Your task to perform on an android device: Open notification settings Image 0: 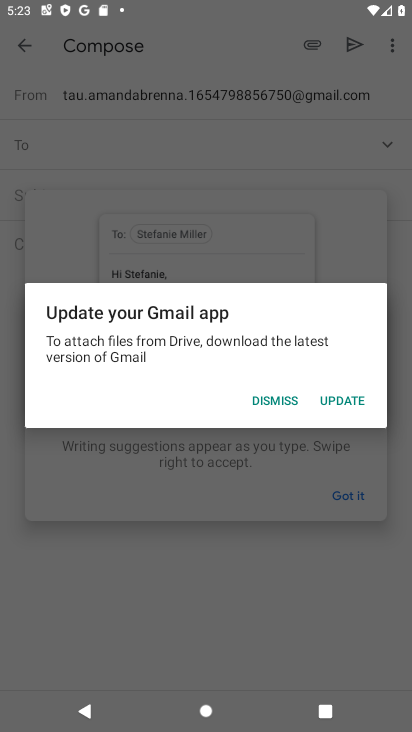
Step 0: press home button
Your task to perform on an android device: Open notification settings Image 1: 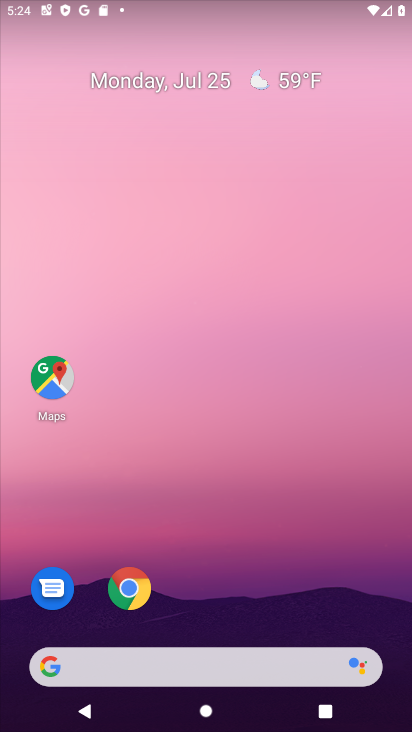
Step 1: click (247, 552)
Your task to perform on an android device: Open notification settings Image 2: 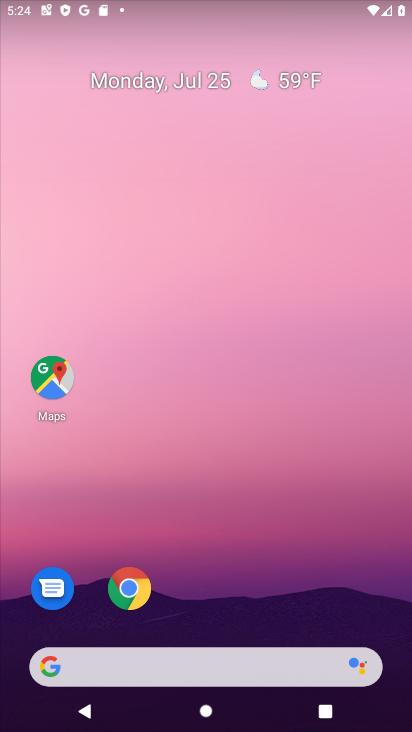
Step 2: click (239, 410)
Your task to perform on an android device: Open notification settings Image 3: 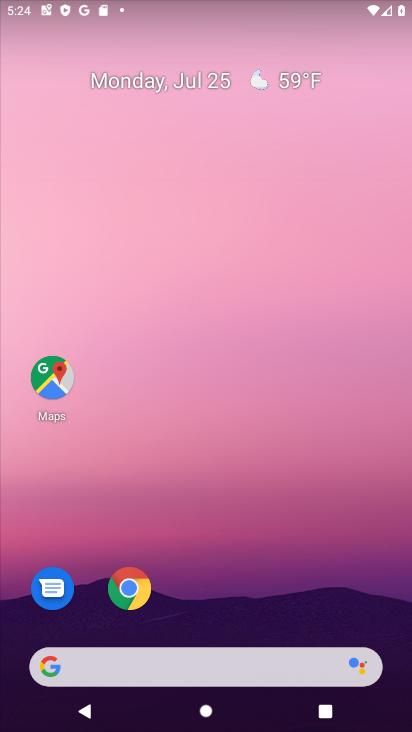
Step 3: drag from (234, 423) to (188, 1)
Your task to perform on an android device: Open notification settings Image 4: 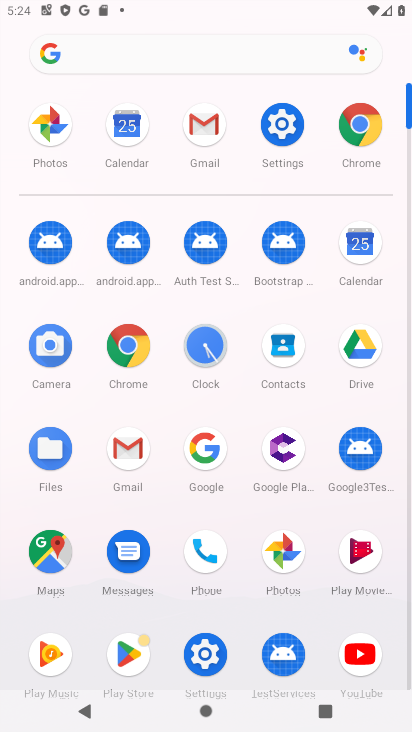
Step 4: click (291, 112)
Your task to perform on an android device: Open notification settings Image 5: 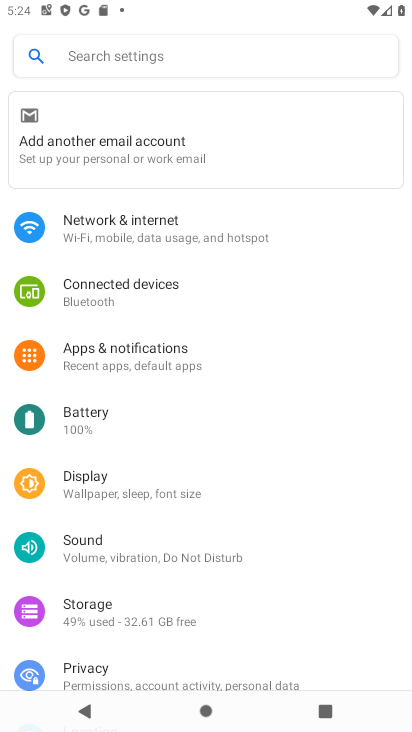
Step 5: click (138, 365)
Your task to perform on an android device: Open notification settings Image 6: 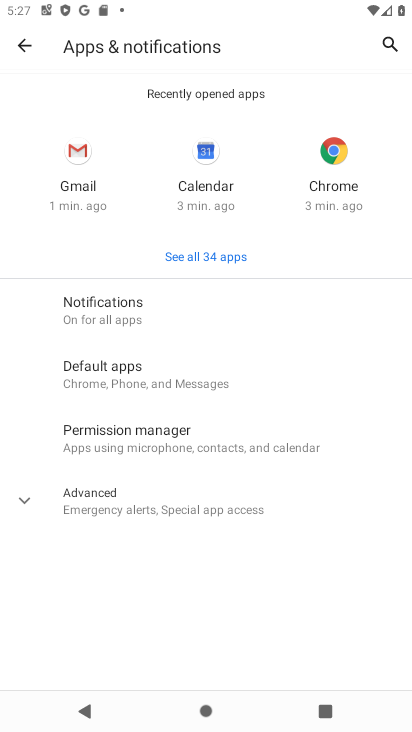
Step 6: press home button
Your task to perform on an android device: Open notification settings Image 7: 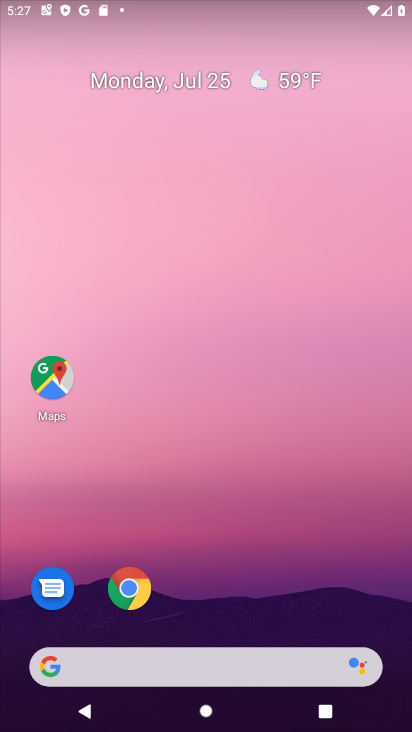
Step 7: drag from (224, 505) to (234, 254)
Your task to perform on an android device: Open notification settings Image 8: 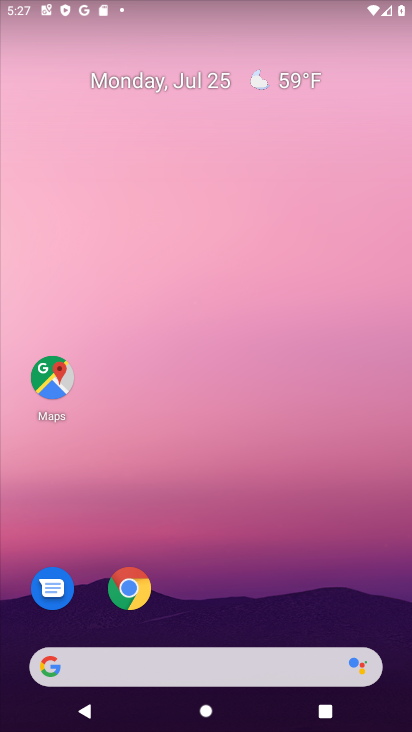
Step 8: drag from (220, 565) to (226, 117)
Your task to perform on an android device: Open notification settings Image 9: 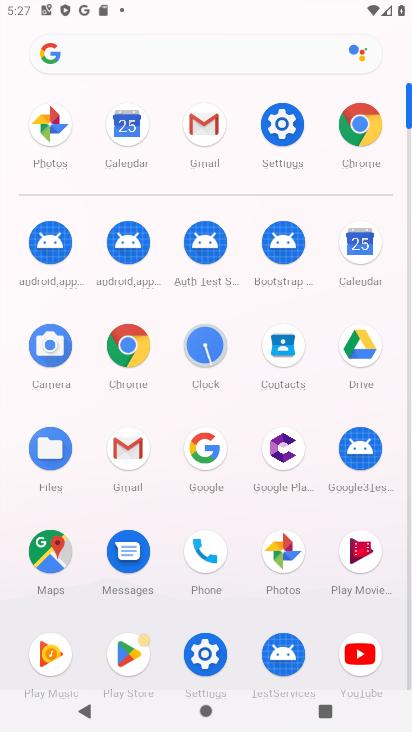
Step 9: click (281, 139)
Your task to perform on an android device: Open notification settings Image 10: 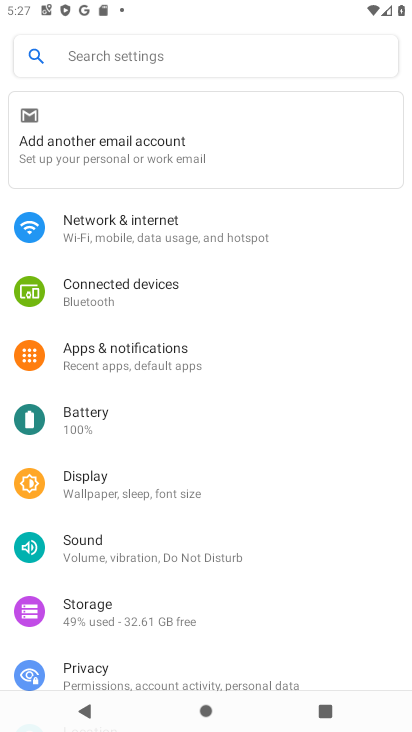
Step 10: click (114, 350)
Your task to perform on an android device: Open notification settings Image 11: 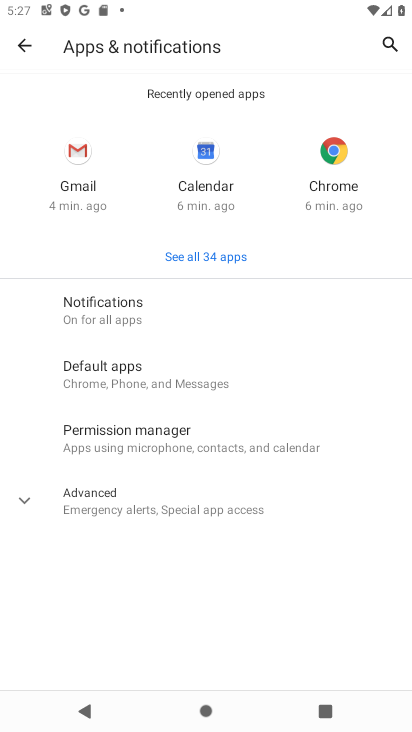
Step 11: task complete